Your task to perform on an android device: delete the emails in spam in the gmail app Image 0: 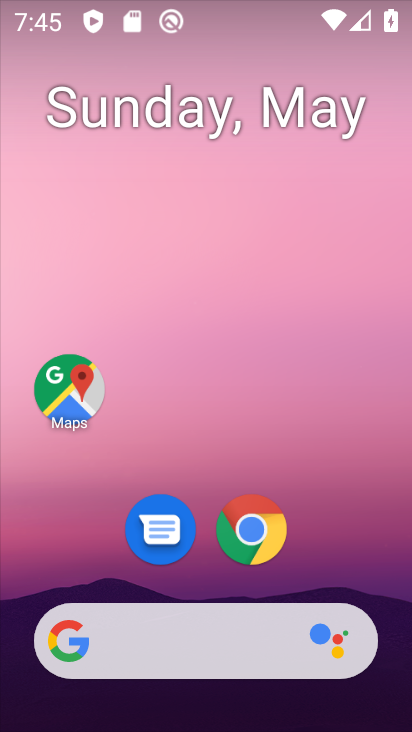
Step 0: drag from (222, 425) to (274, 37)
Your task to perform on an android device: delete the emails in spam in the gmail app Image 1: 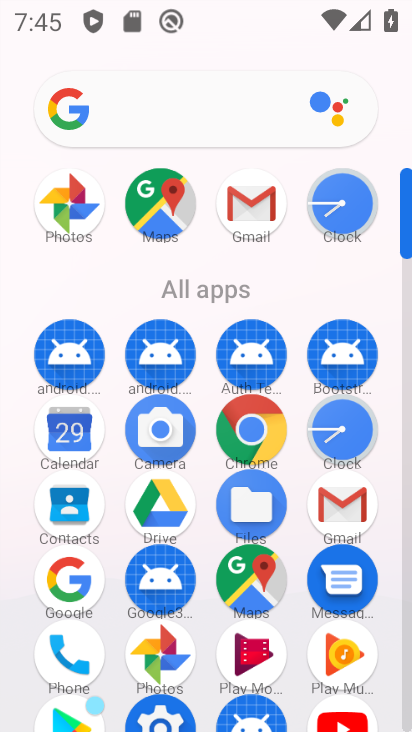
Step 1: click (253, 195)
Your task to perform on an android device: delete the emails in spam in the gmail app Image 2: 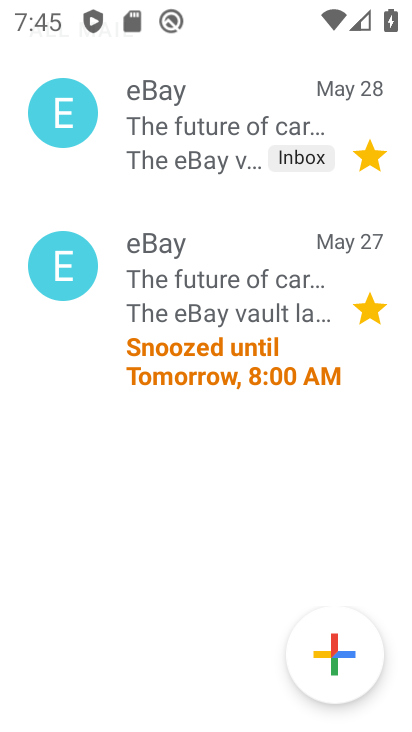
Step 2: drag from (252, 216) to (231, 678)
Your task to perform on an android device: delete the emails in spam in the gmail app Image 3: 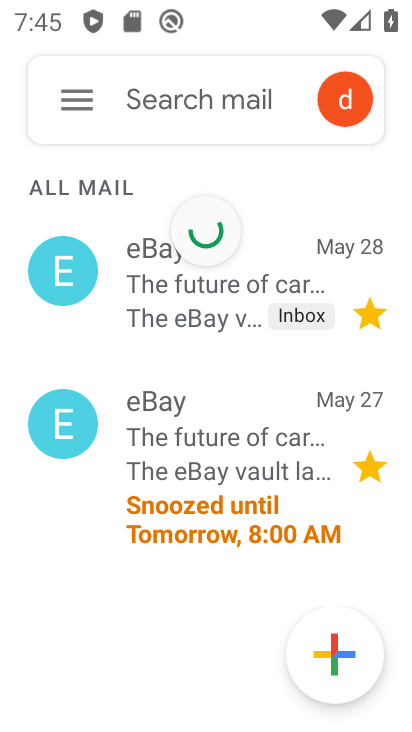
Step 3: click (74, 98)
Your task to perform on an android device: delete the emails in spam in the gmail app Image 4: 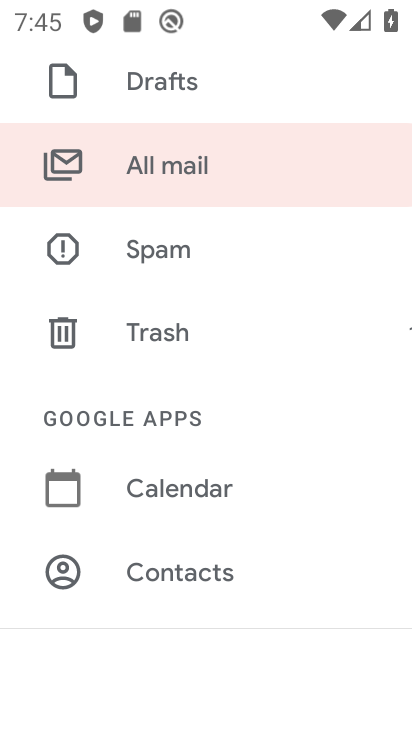
Step 4: click (159, 242)
Your task to perform on an android device: delete the emails in spam in the gmail app Image 5: 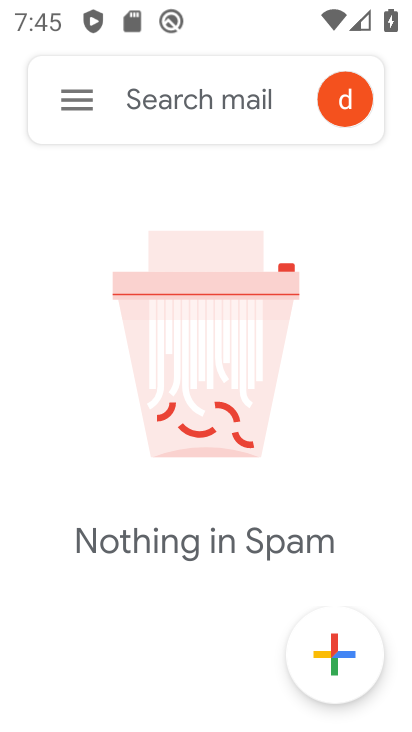
Step 5: task complete